Your task to perform on an android device: stop showing notifications on the lock screen Image 0: 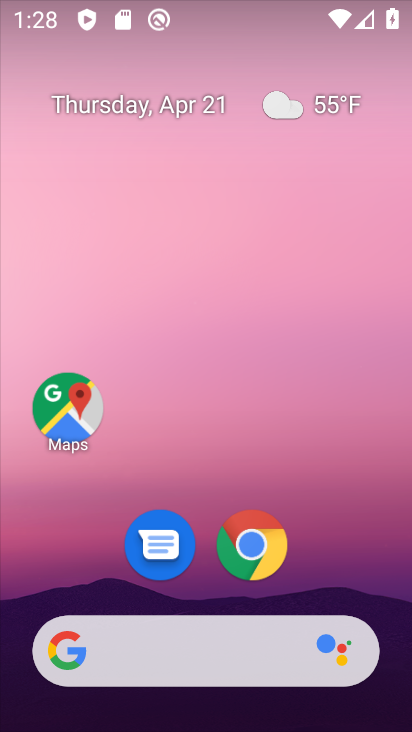
Step 0: drag from (363, 531) to (395, 92)
Your task to perform on an android device: stop showing notifications on the lock screen Image 1: 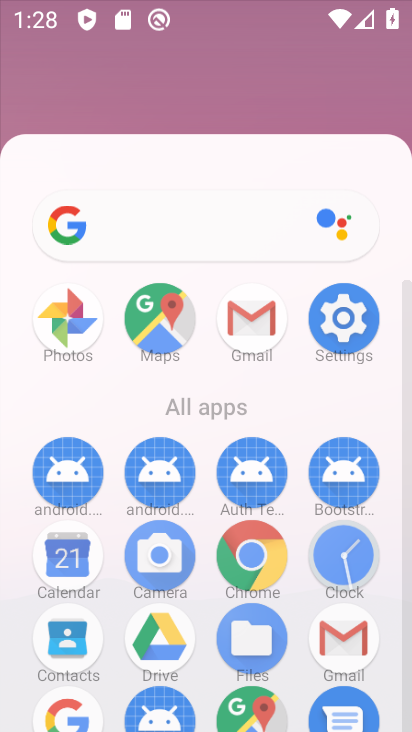
Step 1: click (340, 228)
Your task to perform on an android device: stop showing notifications on the lock screen Image 2: 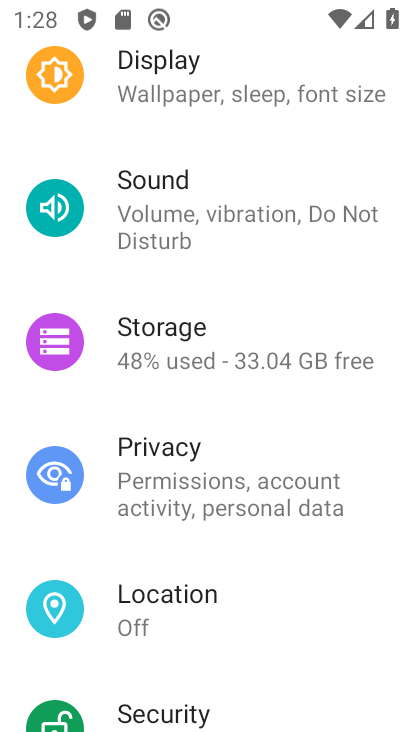
Step 2: drag from (244, 208) to (266, 543)
Your task to perform on an android device: stop showing notifications on the lock screen Image 3: 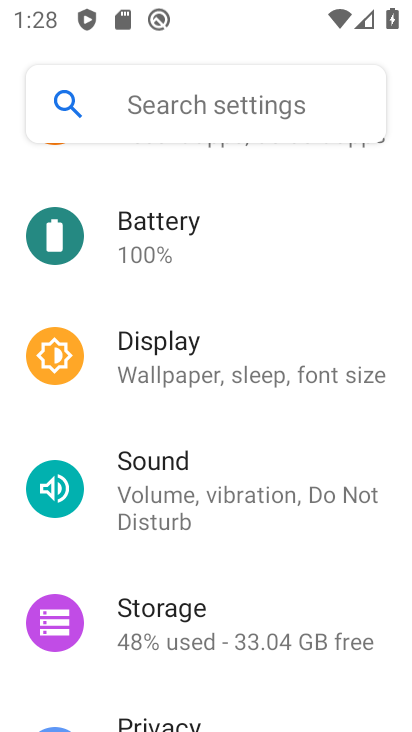
Step 3: drag from (267, 208) to (266, 498)
Your task to perform on an android device: stop showing notifications on the lock screen Image 4: 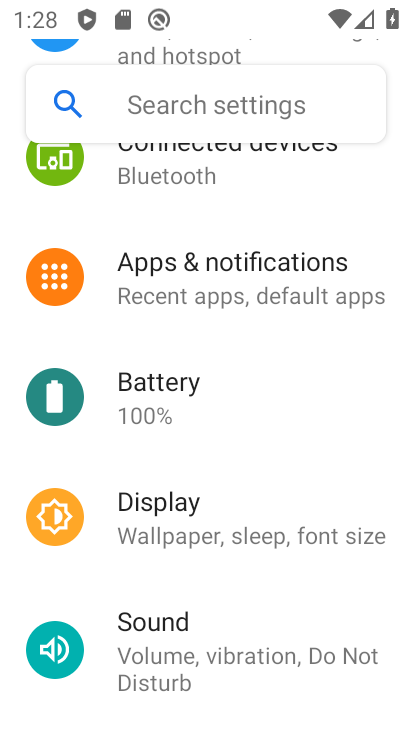
Step 4: click (244, 284)
Your task to perform on an android device: stop showing notifications on the lock screen Image 5: 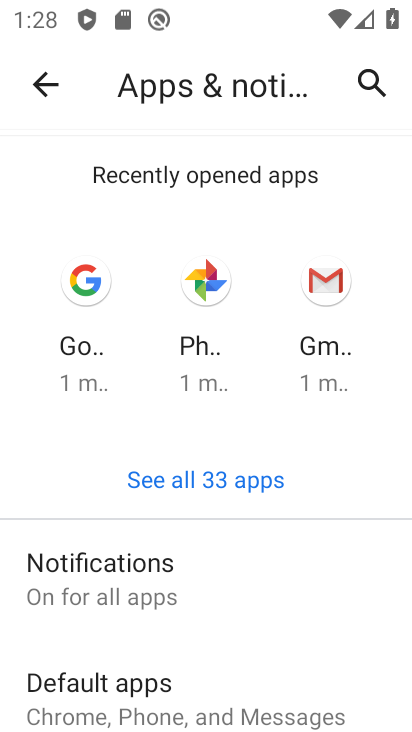
Step 5: click (155, 572)
Your task to perform on an android device: stop showing notifications on the lock screen Image 6: 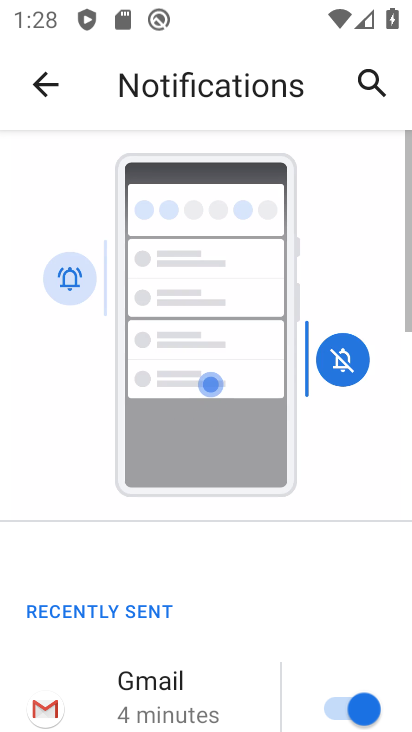
Step 6: drag from (177, 595) to (206, 45)
Your task to perform on an android device: stop showing notifications on the lock screen Image 7: 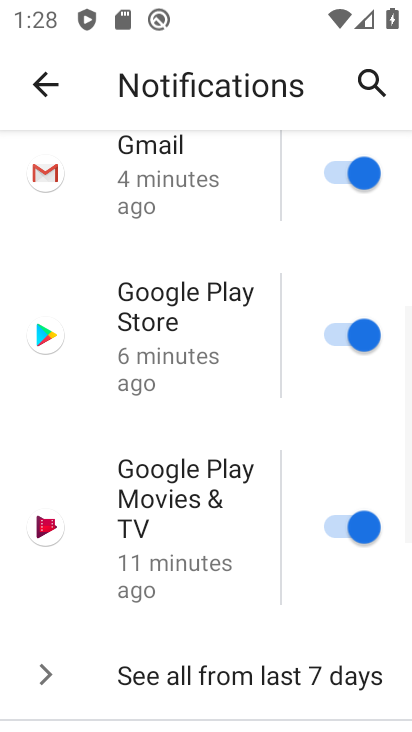
Step 7: drag from (199, 552) to (217, 172)
Your task to perform on an android device: stop showing notifications on the lock screen Image 8: 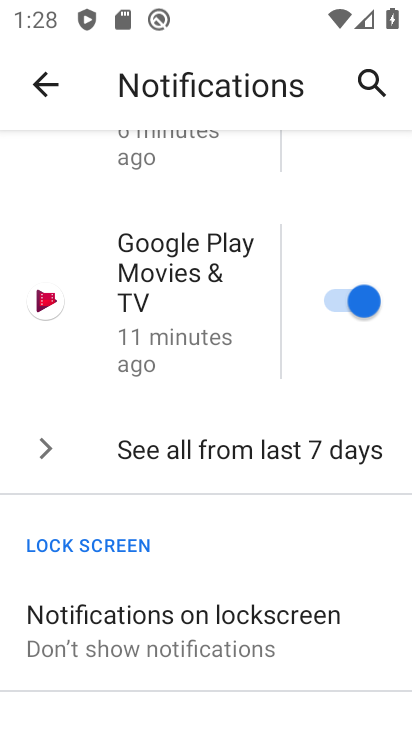
Step 8: click (127, 630)
Your task to perform on an android device: stop showing notifications on the lock screen Image 9: 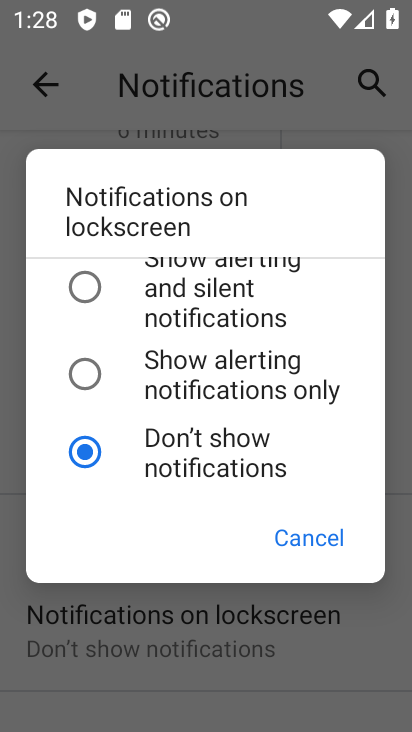
Step 9: task complete